Your task to perform on an android device: allow notifications from all sites in the chrome app Image 0: 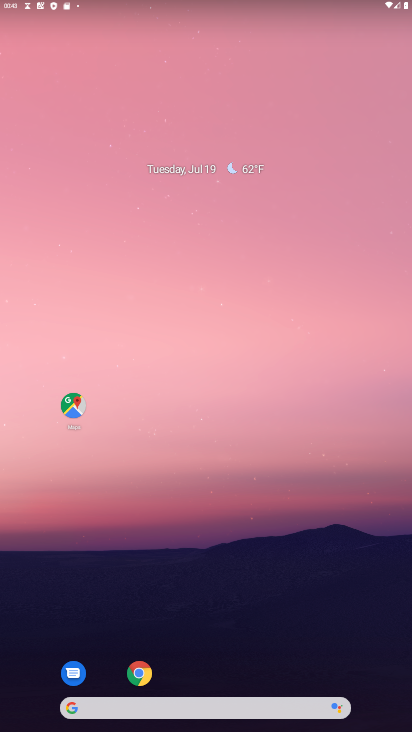
Step 0: drag from (265, 617) to (261, 178)
Your task to perform on an android device: allow notifications from all sites in the chrome app Image 1: 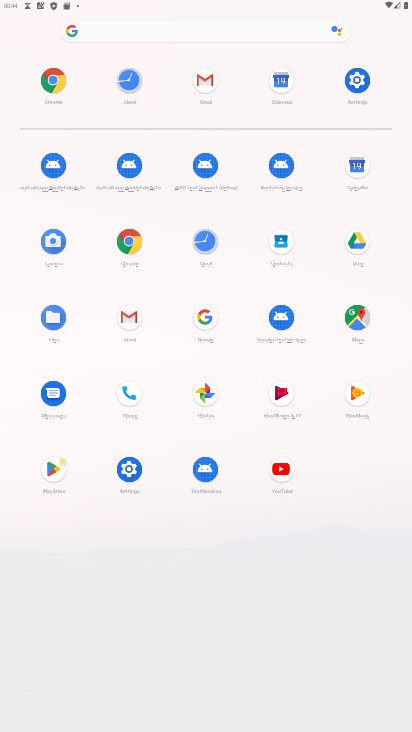
Step 1: click (128, 245)
Your task to perform on an android device: allow notifications from all sites in the chrome app Image 2: 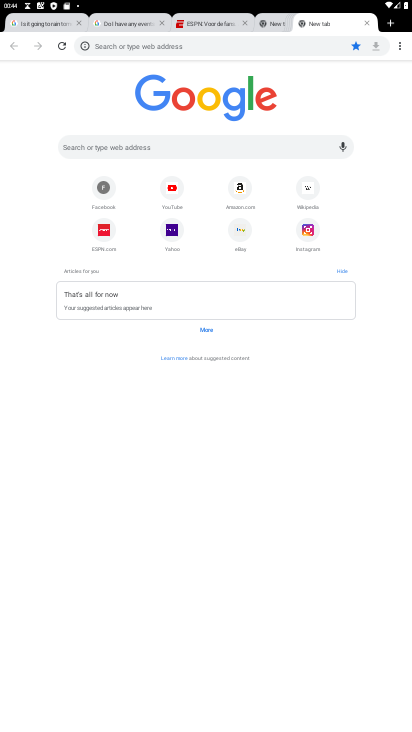
Step 2: click (402, 46)
Your task to perform on an android device: allow notifications from all sites in the chrome app Image 3: 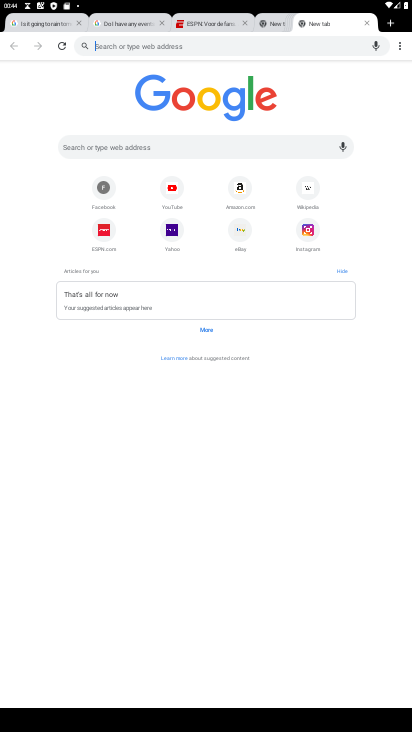
Step 3: click (402, 46)
Your task to perform on an android device: allow notifications from all sites in the chrome app Image 4: 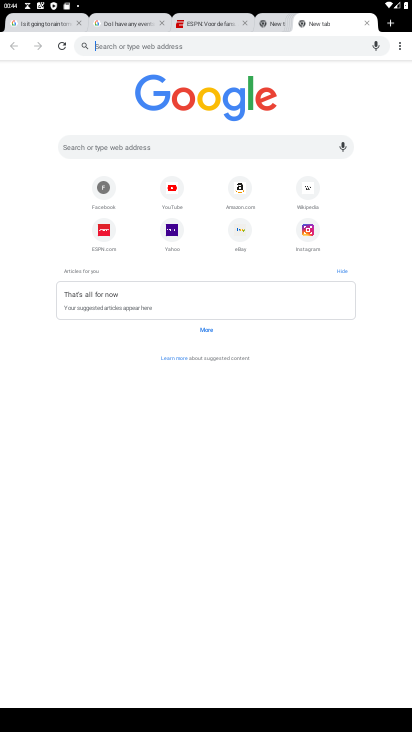
Step 4: click (400, 40)
Your task to perform on an android device: allow notifications from all sites in the chrome app Image 5: 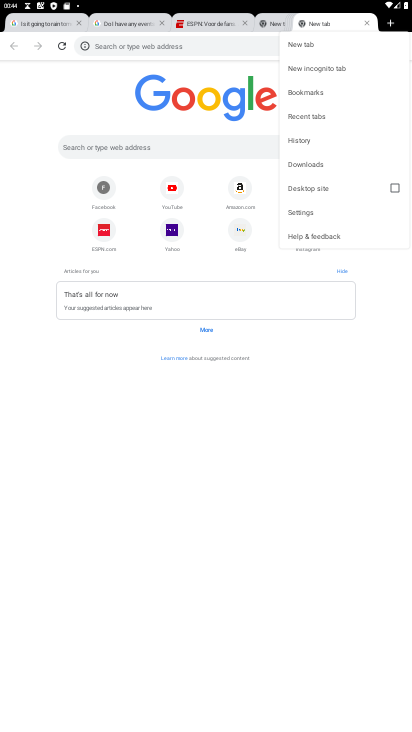
Step 5: click (314, 216)
Your task to perform on an android device: allow notifications from all sites in the chrome app Image 6: 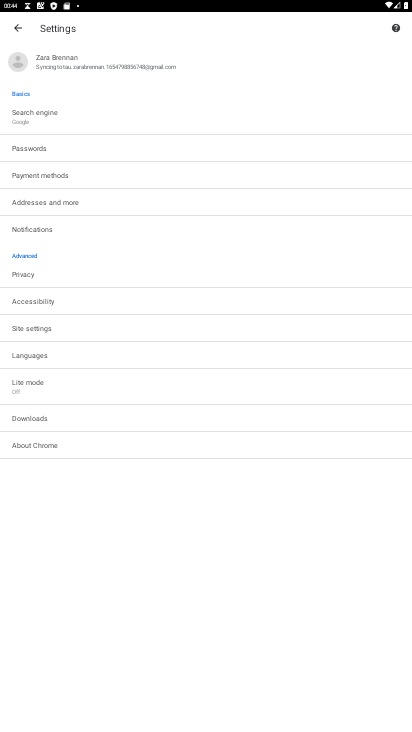
Step 6: click (43, 323)
Your task to perform on an android device: allow notifications from all sites in the chrome app Image 7: 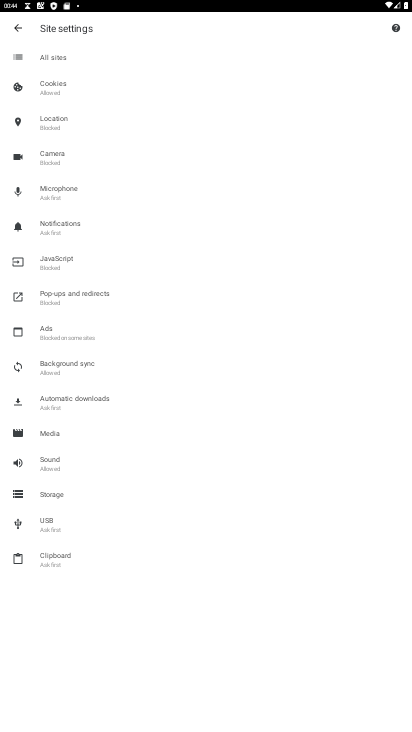
Step 7: click (75, 95)
Your task to perform on an android device: allow notifications from all sites in the chrome app Image 8: 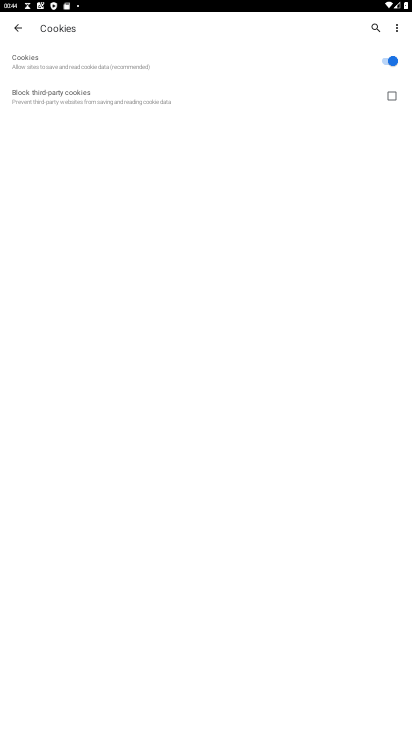
Step 8: click (9, 27)
Your task to perform on an android device: allow notifications from all sites in the chrome app Image 9: 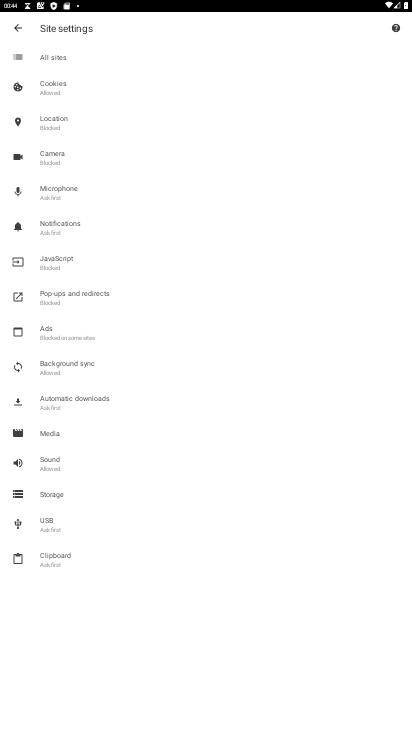
Step 9: click (57, 122)
Your task to perform on an android device: allow notifications from all sites in the chrome app Image 10: 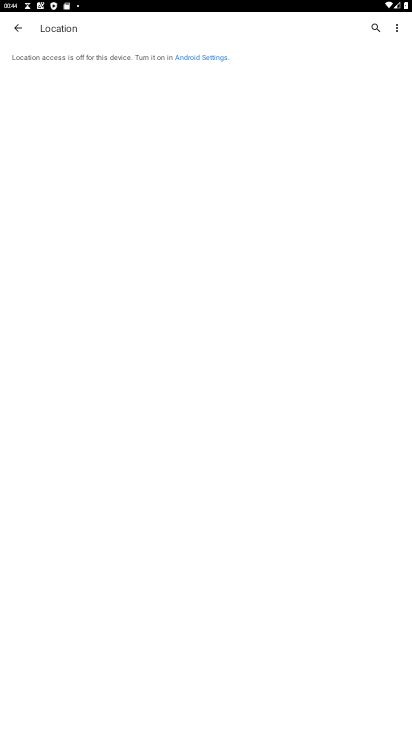
Step 10: click (10, 22)
Your task to perform on an android device: allow notifications from all sites in the chrome app Image 11: 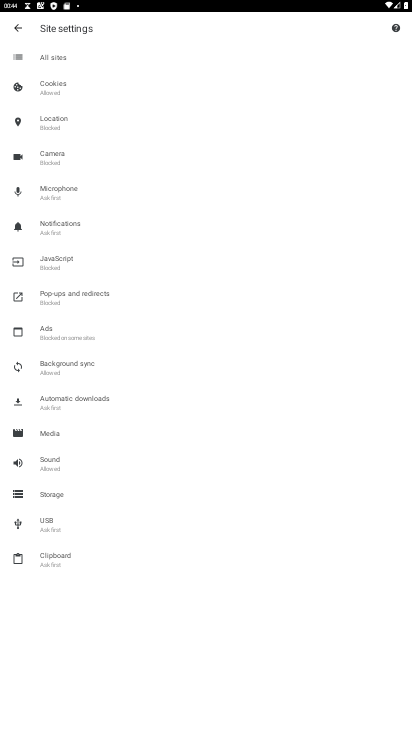
Step 11: click (65, 199)
Your task to perform on an android device: allow notifications from all sites in the chrome app Image 12: 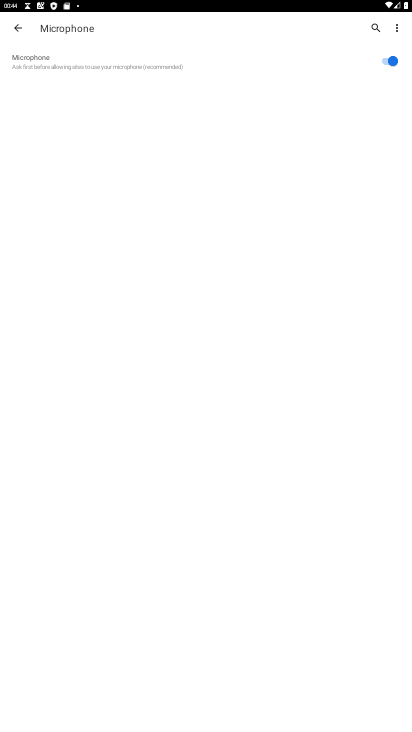
Step 12: click (21, 28)
Your task to perform on an android device: allow notifications from all sites in the chrome app Image 13: 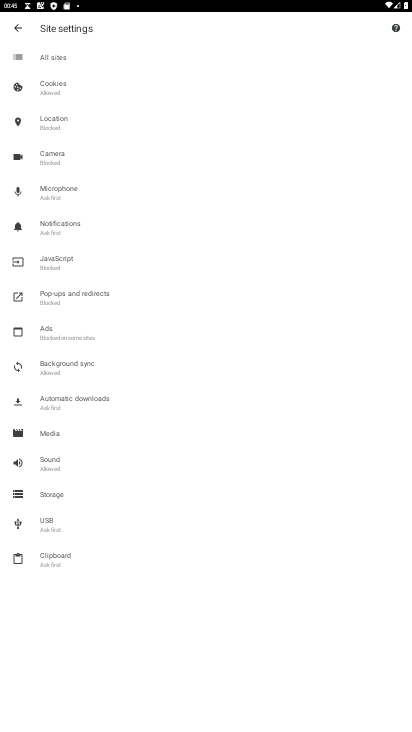
Step 13: click (77, 263)
Your task to perform on an android device: allow notifications from all sites in the chrome app Image 14: 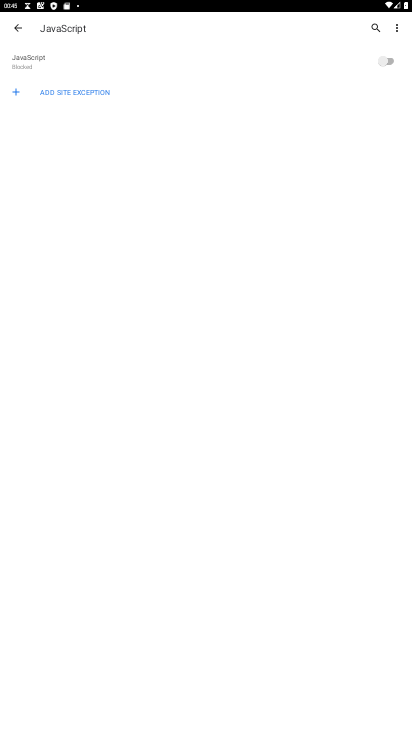
Step 14: click (17, 26)
Your task to perform on an android device: allow notifications from all sites in the chrome app Image 15: 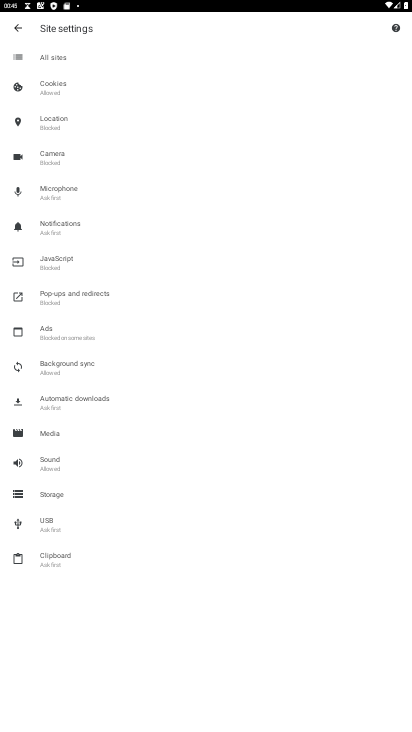
Step 15: click (84, 285)
Your task to perform on an android device: allow notifications from all sites in the chrome app Image 16: 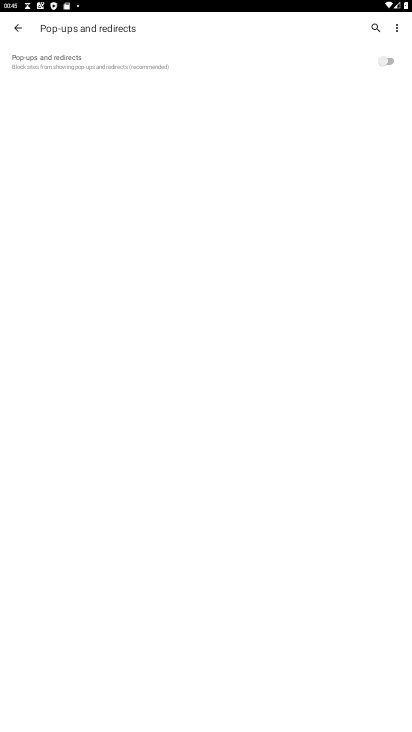
Step 16: click (13, 29)
Your task to perform on an android device: allow notifications from all sites in the chrome app Image 17: 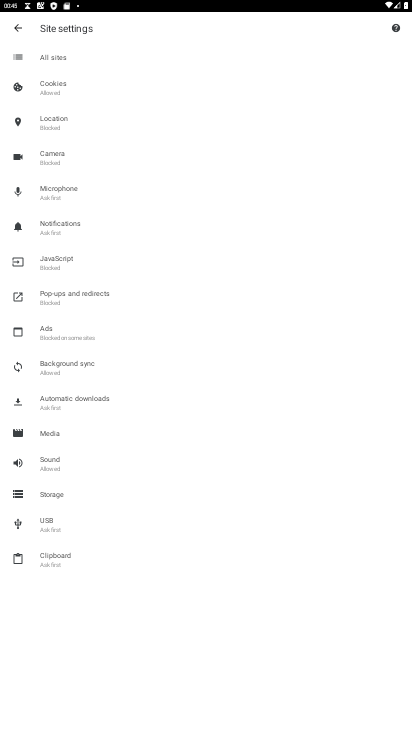
Step 17: click (84, 302)
Your task to perform on an android device: allow notifications from all sites in the chrome app Image 18: 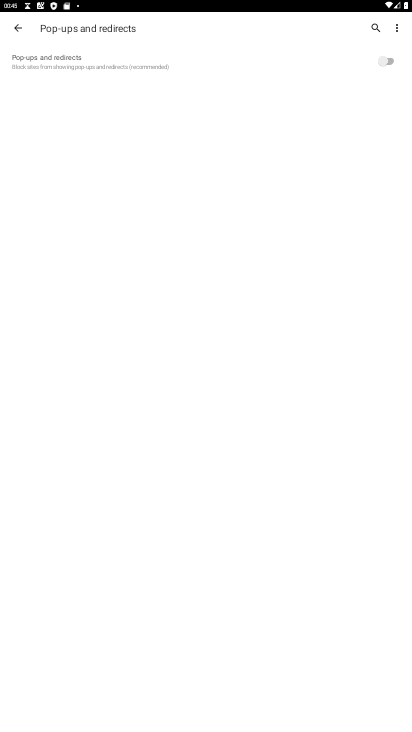
Step 18: click (397, 65)
Your task to perform on an android device: allow notifications from all sites in the chrome app Image 19: 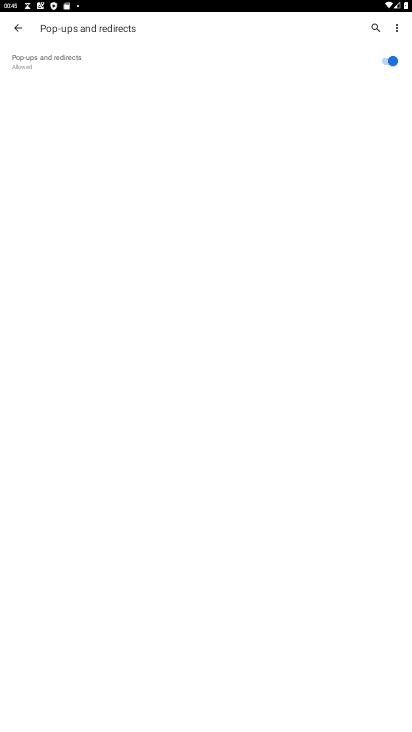
Step 19: click (15, 18)
Your task to perform on an android device: allow notifications from all sites in the chrome app Image 20: 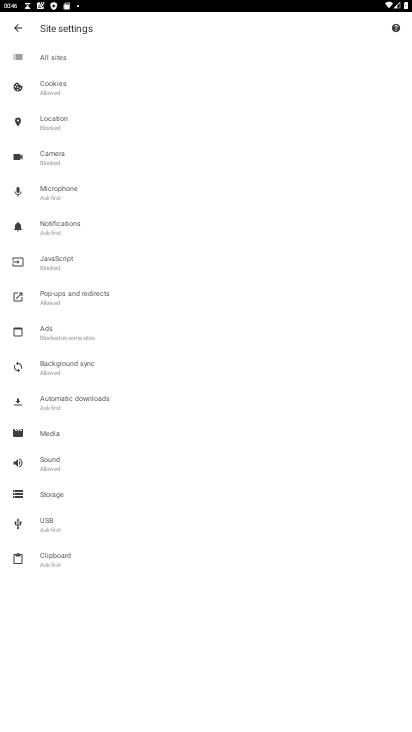
Step 20: task complete